Your task to perform on an android device: open wifi settings Image 0: 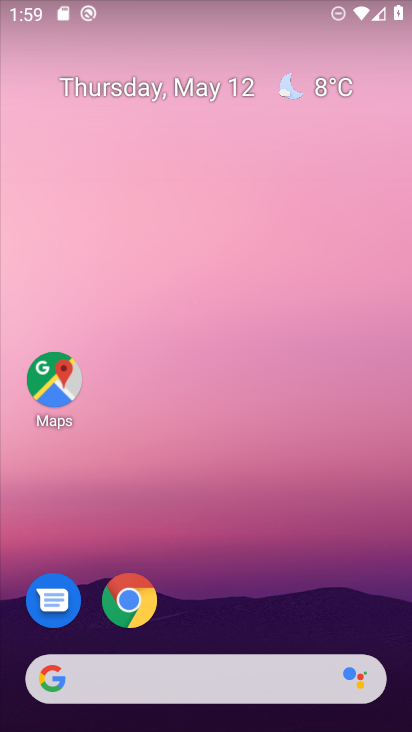
Step 0: drag from (206, 699) to (250, 163)
Your task to perform on an android device: open wifi settings Image 1: 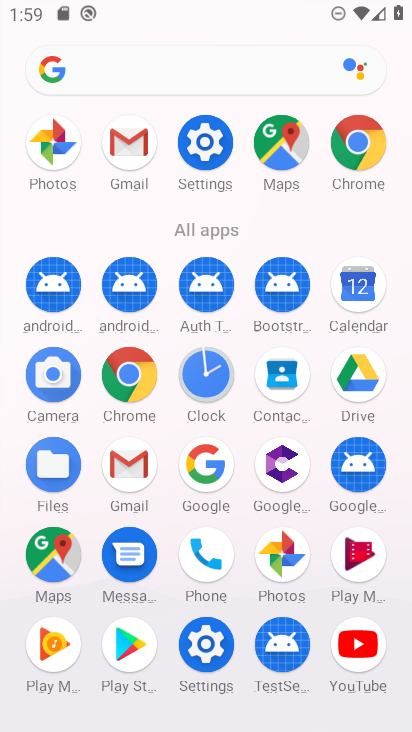
Step 1: click (204, 140)
Your task to perform on an android device: open wifi settings Image 2: 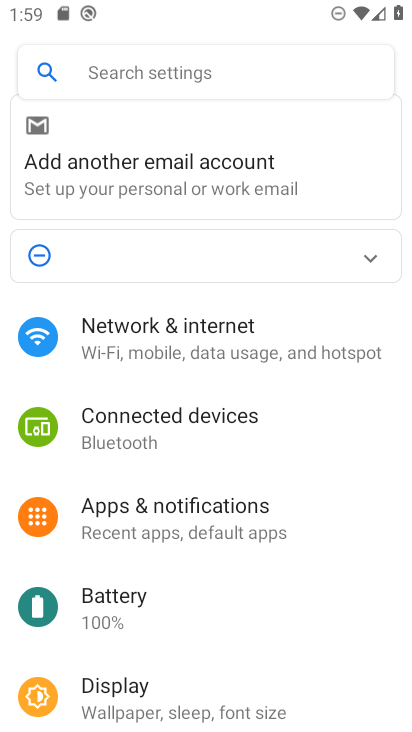
Step 2: click (141, 341)
Your task to perform on an android device: open wifi settings Image 3: 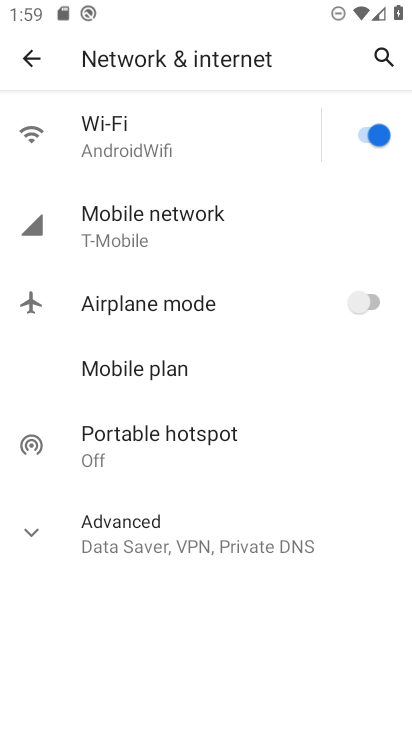
Step 3: click (111, 130)
Your task to perform on an android device: open wifi settings Image 4: 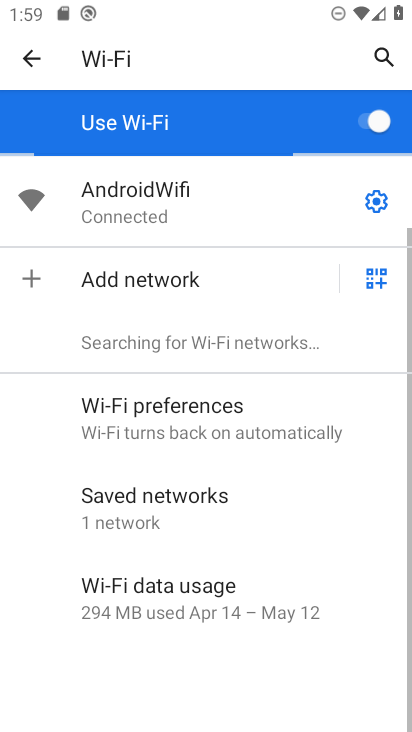
Step 4: task complete